Your task to perform on an android device: Search for seafood restaurants on Google Maps Image 0: 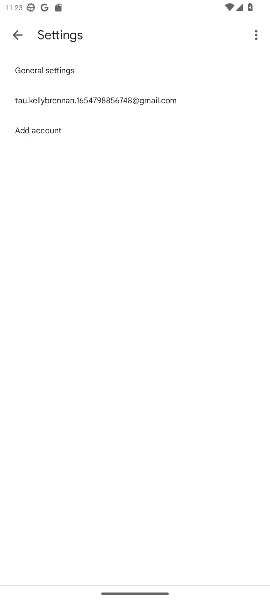
Step 0: press home button
Your task to perform on an android device: Search for seafood restaurants on Google Maps Image 1: 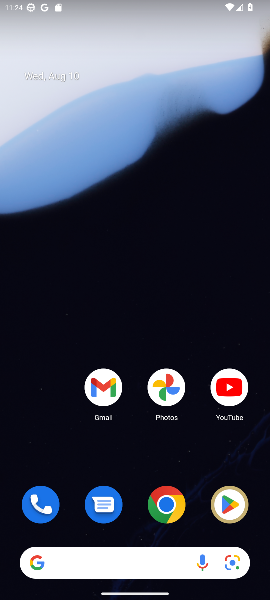
Step 1: drag from (59, 443) to (101, 113)
Your task to perform on an android device: Search for seafood restaurants on Google Maps Image 2: 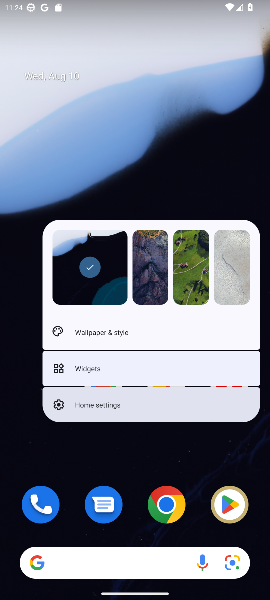
Step 2: drag from (23, 434) to (30, 87)
Your task to perform on an android device: Search for seafood restaurants on Google Maps Image 3: 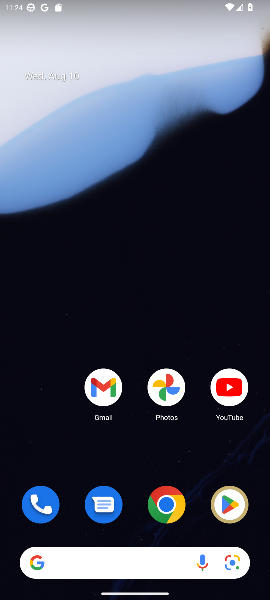
Step 3: drag from (63, 438) to (72, 130)
Your task to perform on an android device: Search for seafood restaurants on Google Maps Image 4: 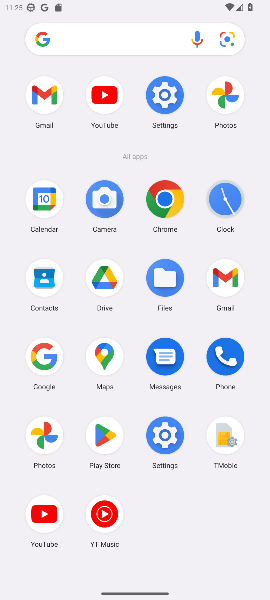
Step 4: click (102, 357)
Your task to perform on an android device: Search for seafood restaurants on Google Maps Image 5: 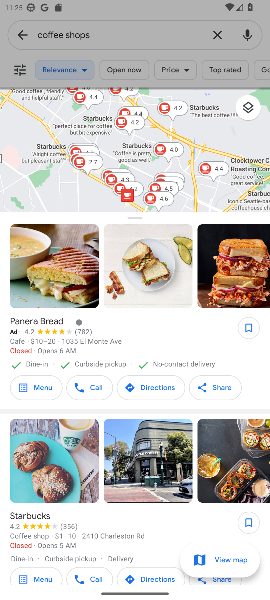
Step 5: click (143, 33)
Your task to perform on an android device: Search for seafood restaurants on Google Maps Image 6: 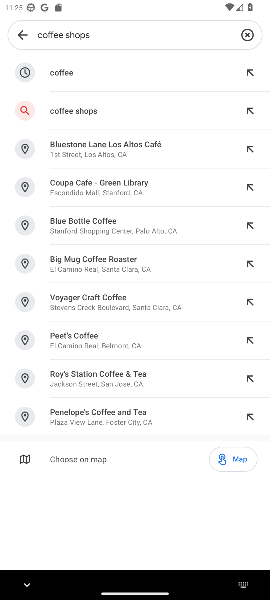
Step 6: click (244, 37)
Your task to perform on an android device: Search for seafood restaurants on Google Maps Image 7: 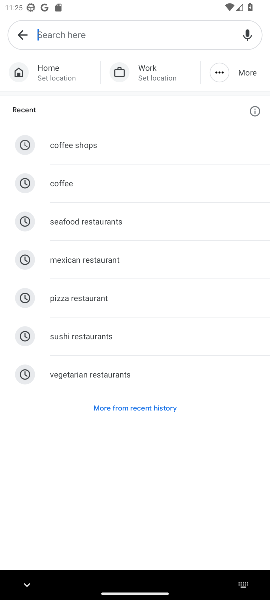
Step 7: type "seafood restaurants"
Your task to perform on an android device: Search for seafood restaurants on Google Maps Image 8: 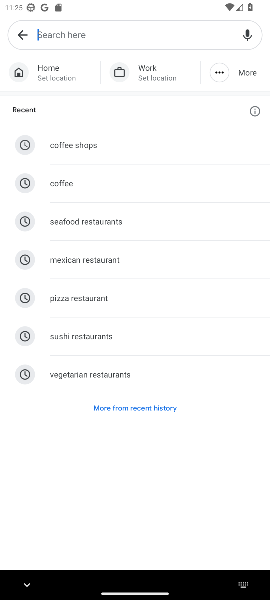
Step 8: click (102, 31)
Your task to perform on an android device: Search for seafood restaurants on Google Maps Image 9: 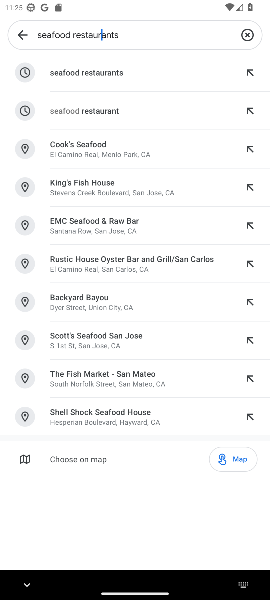
Step 9: press enter
Your task to perform on an android device: Search for seafood restaurants on Google Maps Image 10: 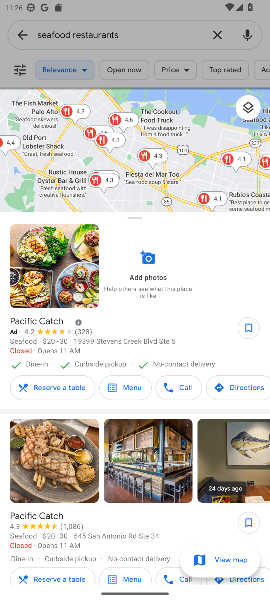
Step 10: task complete